Your task to perform on an android device: Go to Wikipedia Image 0: 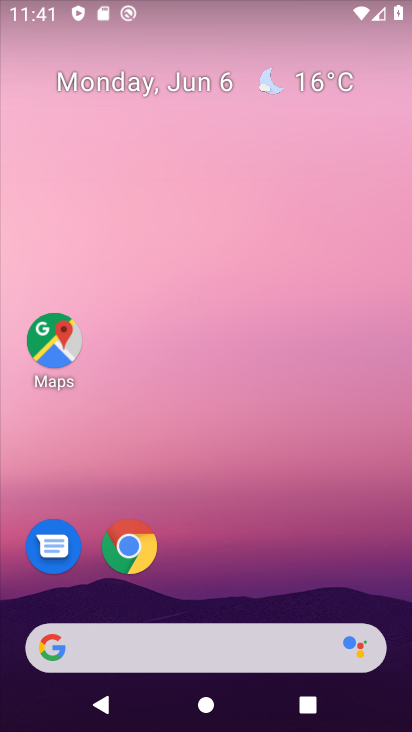
Step 0: drag from (192, 398) to (167, 265)
Your task to perform on an android device: Go to Wikipedia Image 1: 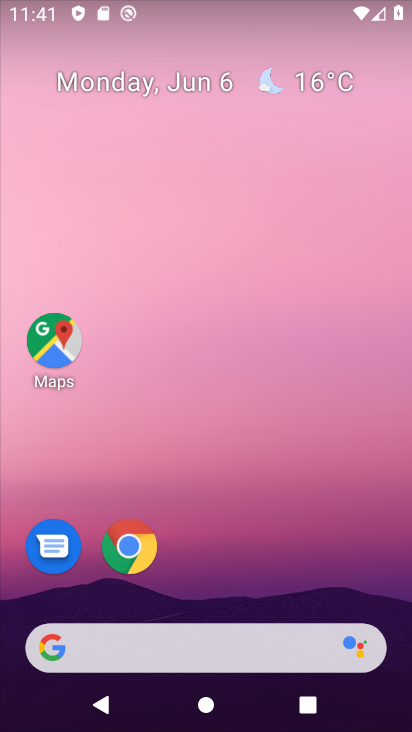
Step 1: drag from (240, 649) to (178, 251)
Your task to perform on an android device: Go to Wikipedia Image 2: 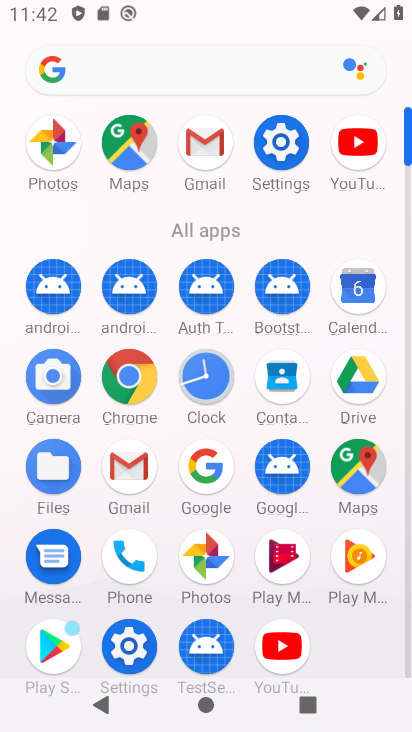
Step 2: click (125, 373)
Your task to perform on an android device: Go to Wikipedia Image 3: 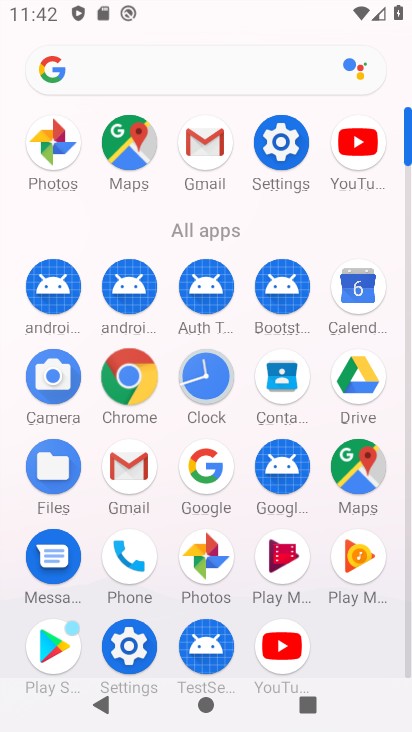
Step 3: click (127, 378)
Your task to perform on an android device: Go to Wikipedia Image 4: 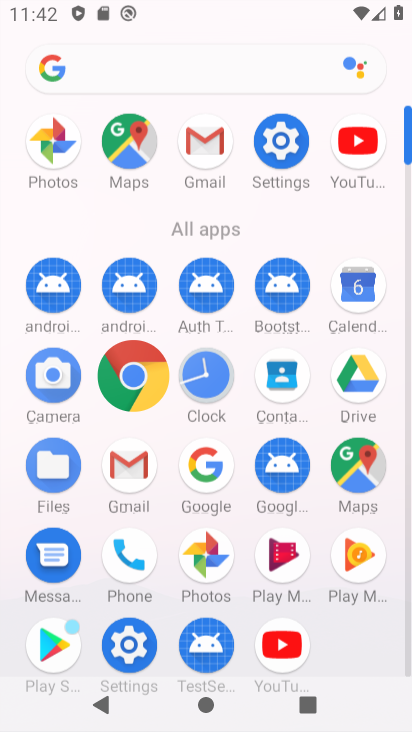
Step 4: click (131, 382)
Your task to perform on an android device: Go to Wikipedia Image 5: 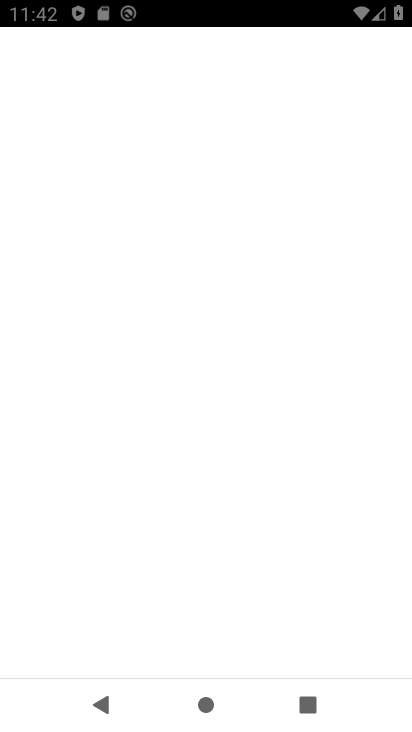
Step 5: click (135, 387)
Your task to perform on an android device: Go to Wikipedia Image 6: 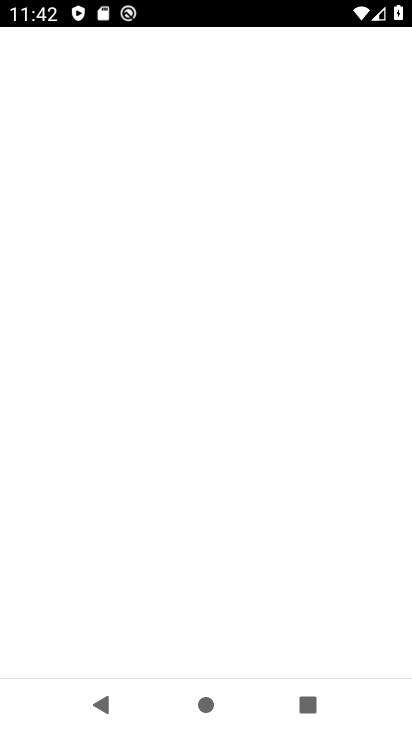
Step 6: click (129, 379)
Your task to perform on an android device: Go to Wikipedia Image 7: 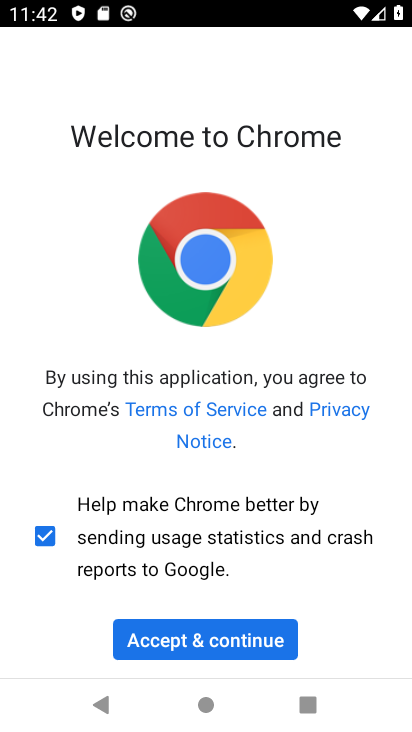
Step 7: click (197, 626)
Your task to perform on an android device: Go to Wikipedia Image 8: 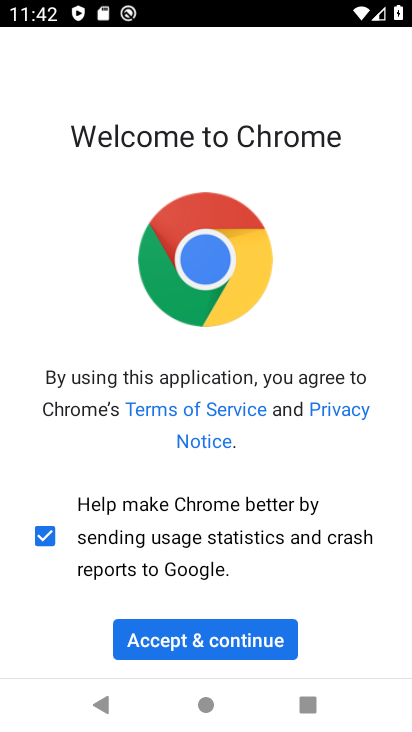
Step 8: click (206, 659)
Your task to perform on an android device: Go to Wikipedia Image 9: 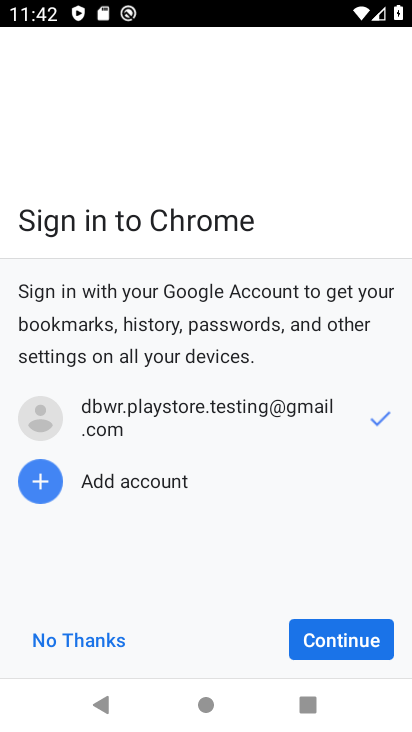
Step 9: click (215, 641)
Your task to perform on an android device: Go to Wikipedia Image 10: 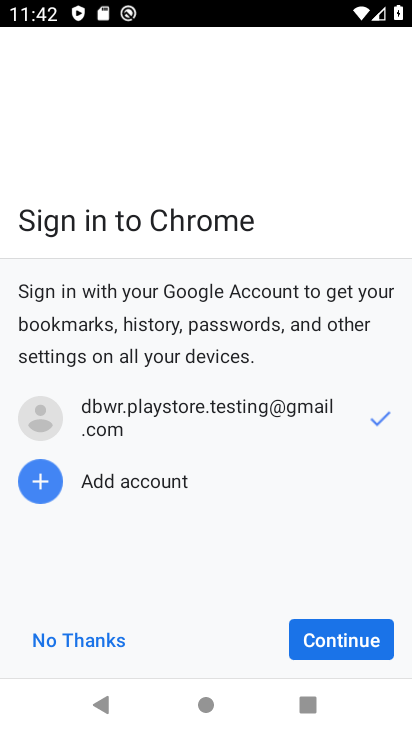
Step 10: click (352, 634)
Your task to perform on an android device: Go to Wikipedia Image 11: 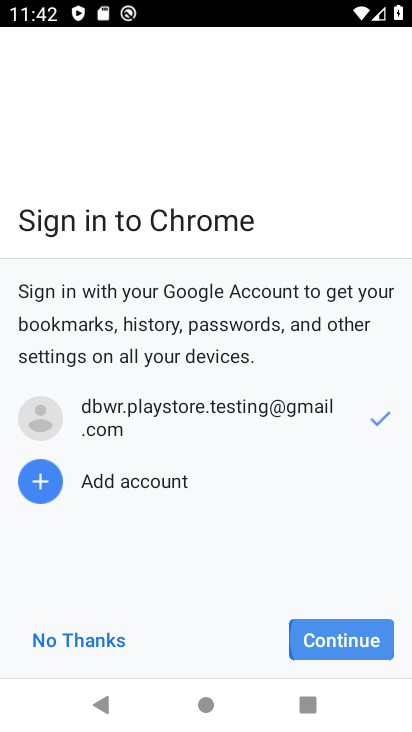
Step 11: click (353, 636)
Your task to perform on an android device: Go to Wikipedia Image 12: 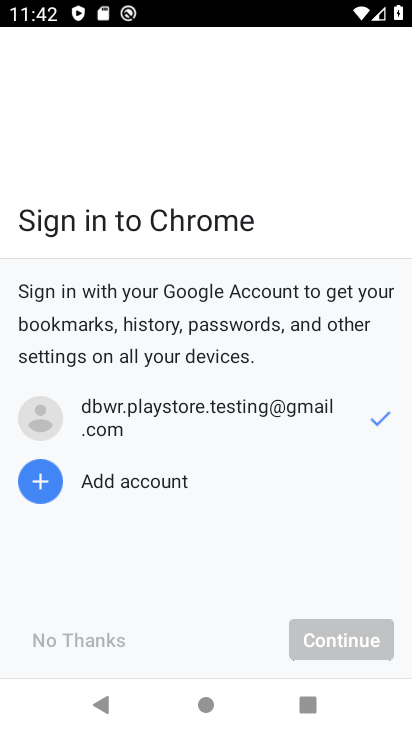
Step 12: click (353, 636)
Your task to perform on an android device: Go to Wikipedia Image 13: 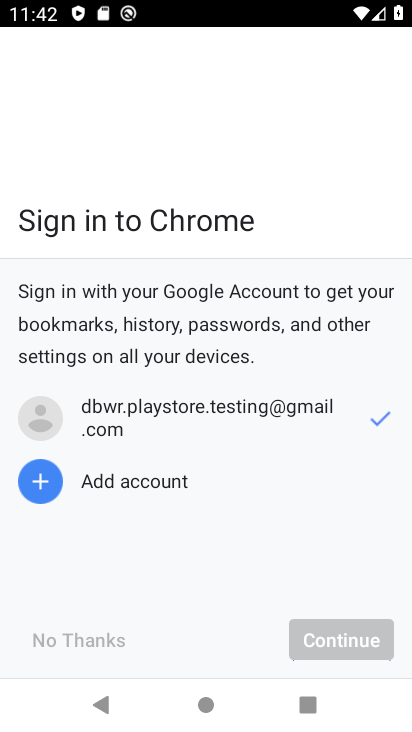
Step 13: click (353, 637)
Your task to perform on an android device: Go to Wikipedia Image 14: 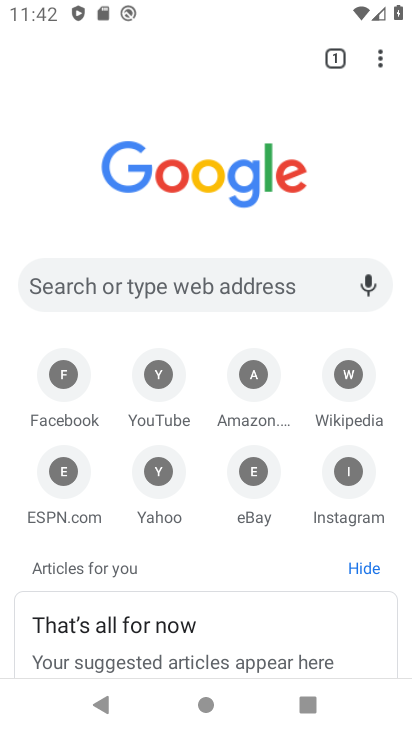
Step 14: click (351, 375)
Your task to perform on an android device: Go to Wikipedia Image 15: 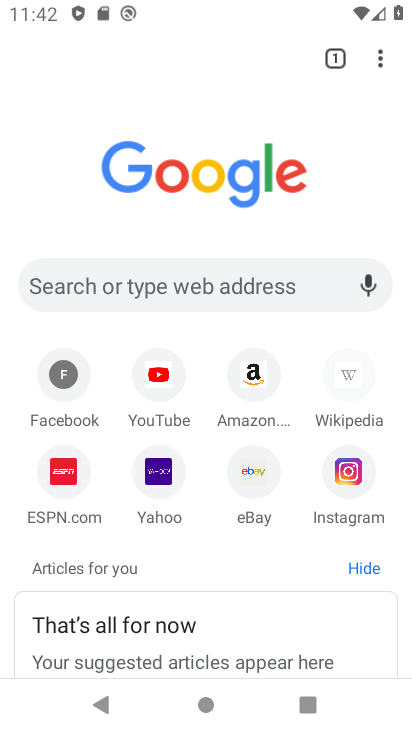
Step 15: click (352, 374)
Your task to perform on an android device: Go to Wikipedia Image 16: 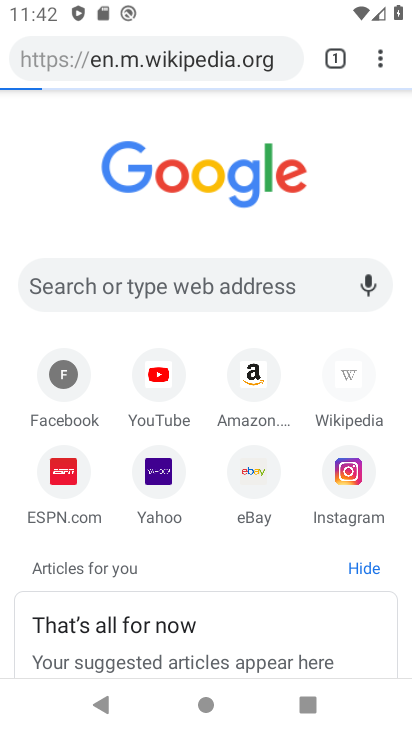
Step 16: click (352, 374)
Your task to perform on an android device: Go to Wikipedia Image 17: 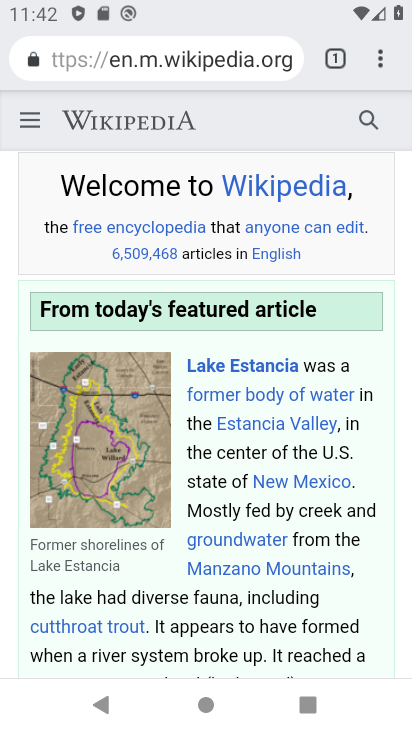
Step 17: task complete